Your task to perform on an android device: snooze an email in the gmail app Image 0: 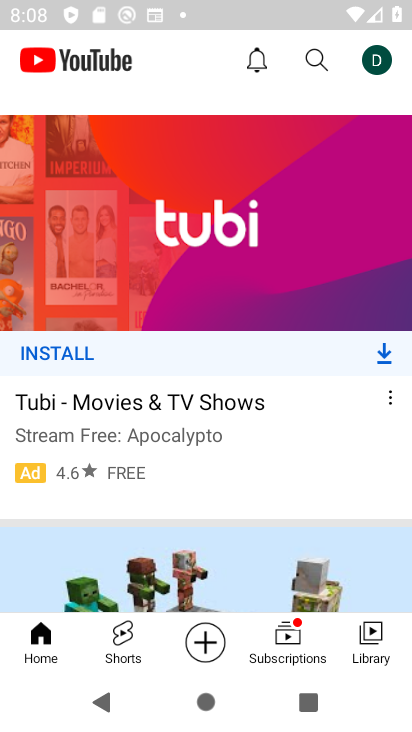
Step 0: press home button
Your task to perform on an android device: snooze an email in the gmail app Image 1: 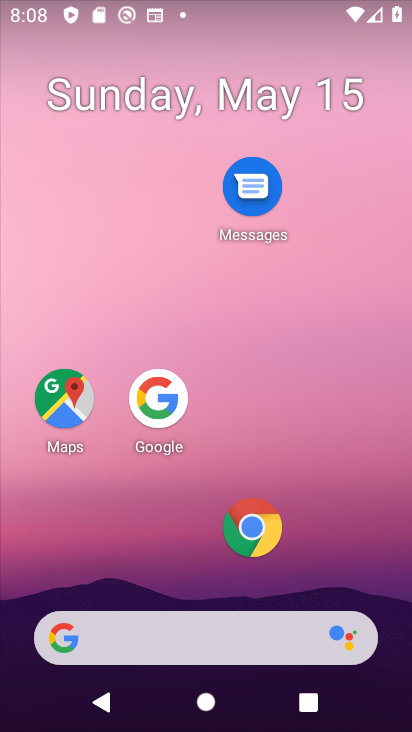
Step 1: drag from (149, 637) to (281, 248)
Your task to perform on an android device: snooze an email in the gmail app Image 2: 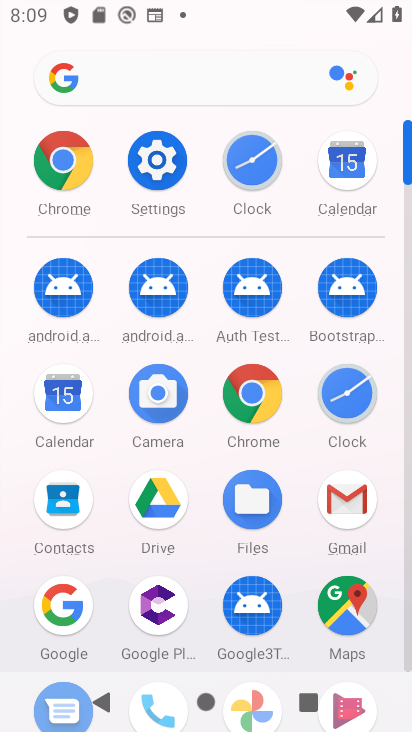
Step 2: click (345, 509)
Your task to perform on an android device: snooze an email in the gmail app Image 3: 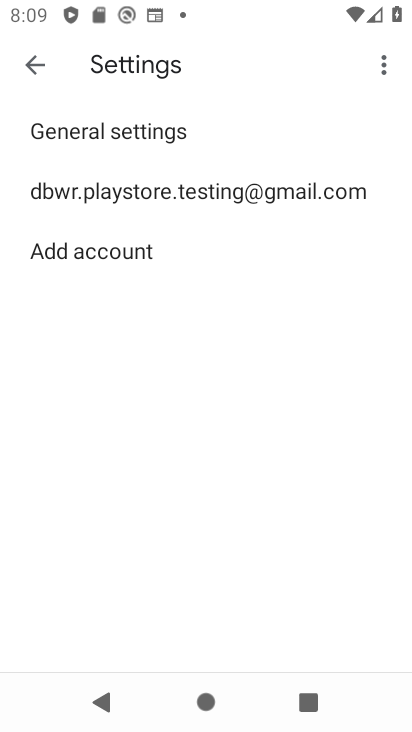
Step 3: click (36, 64)
Your task to perform on an android device: snooze an email in the gmail app Image 4: 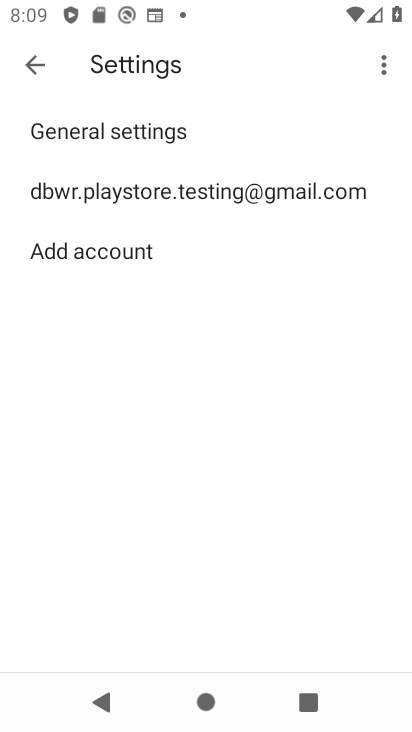
Step 4: click (35, 64)
Your task to perform on an android device: snooze an email in the gmail app Image 5: 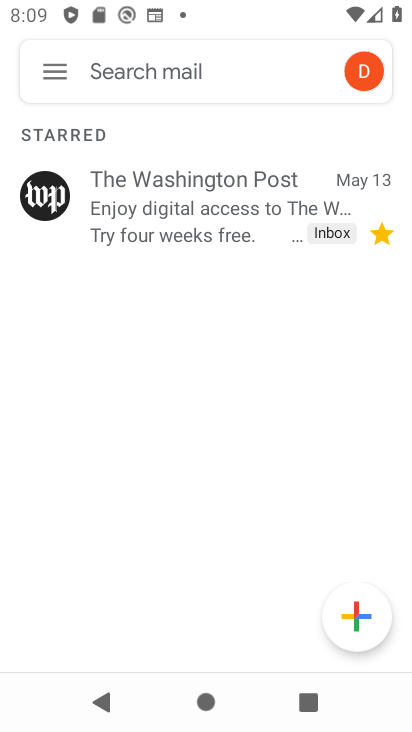
Step 5: click (50, 204)
Your task to perform on an android device: snooze an email in the gmail app Image 6: 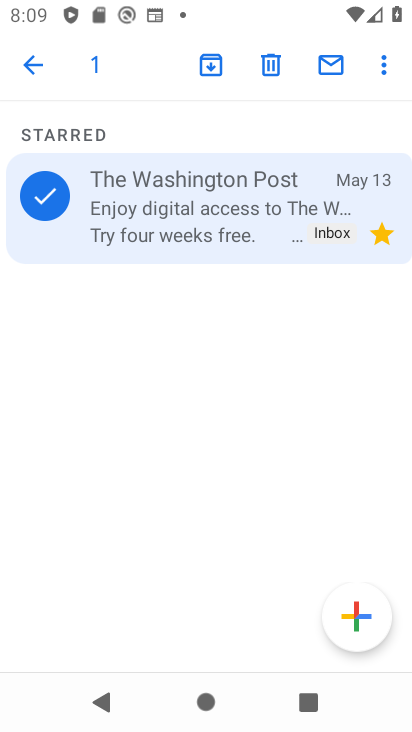
Step 6: click (384, 66)
Your task to perform on an android device: snooze an email in the gmail app Image 7: 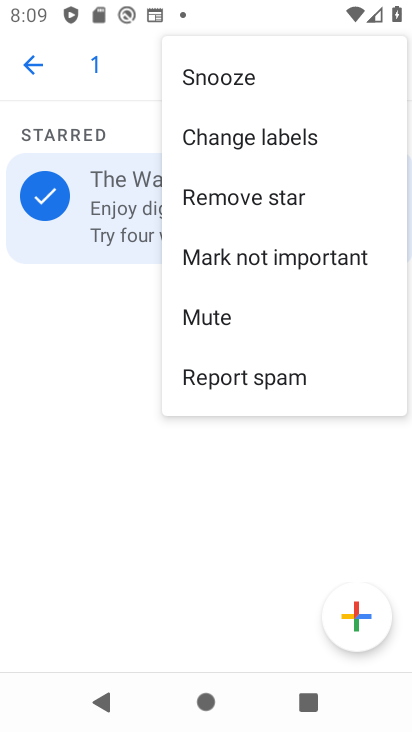
Step 7: click (223, 77)
Your task to perform on an android device: snooze an email in the gmail app Image 8: 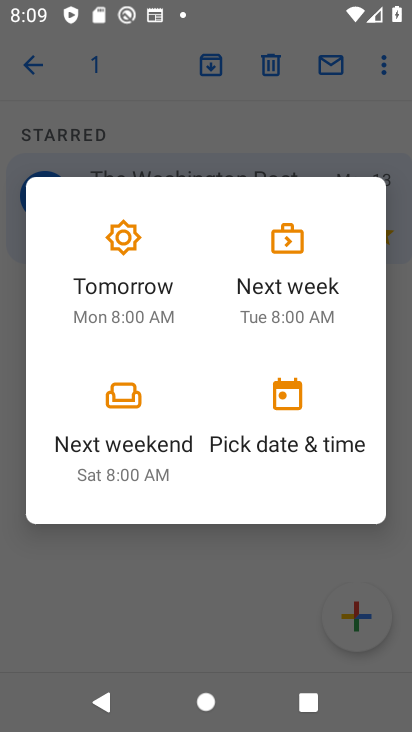
Step 8: click (134, 280)
Your task to perform on an android device: snooze an email in the gmail app Image 9: 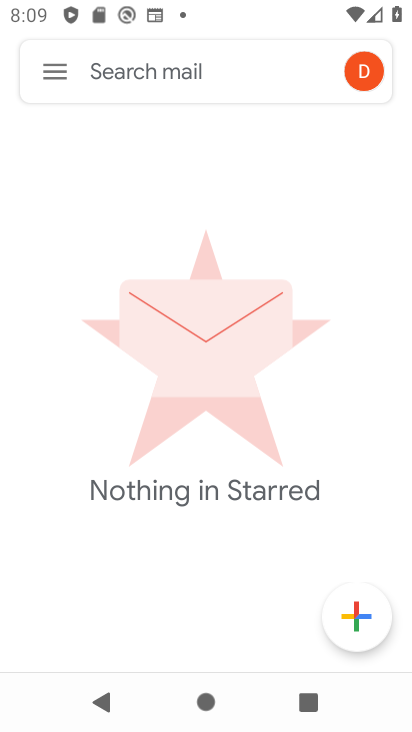
Step 9: task complete